Your task to perform on an android device: turn on notifications settings in the gmail app Image 0: 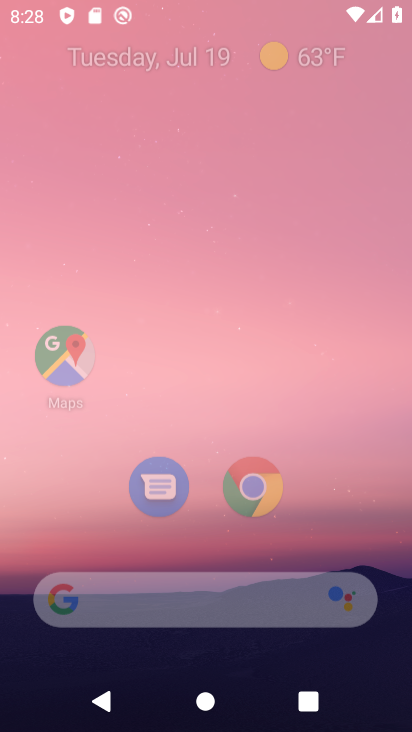
Step 0: click (241, 585)
Your task to perform on an android device: turn on notifications settings in the gmail app Image 1: 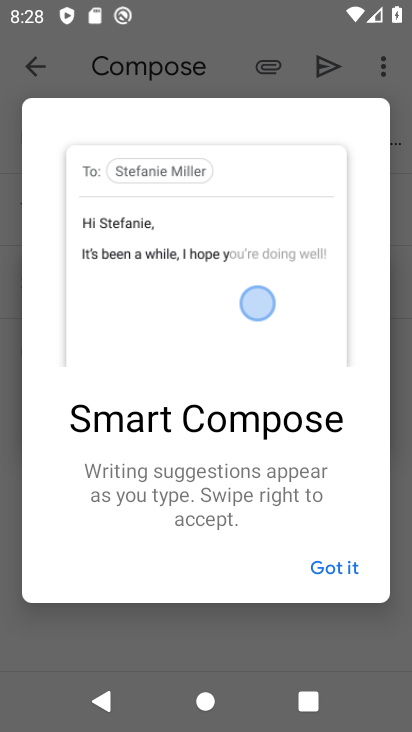
Step 1: press home button
Your task to perform on an android device: turn on notifications settings in the gmail app Image 2: 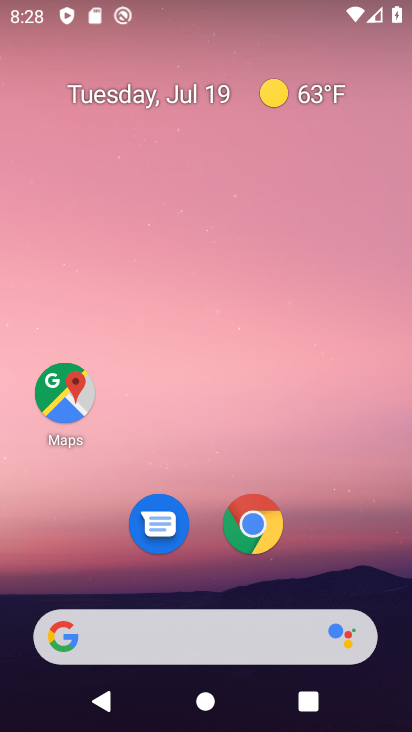
Step 2: drag from (214, 632) to (309, 184)
Your task to perform on an android device: turn on notifications settings in the gmail app Image 3: 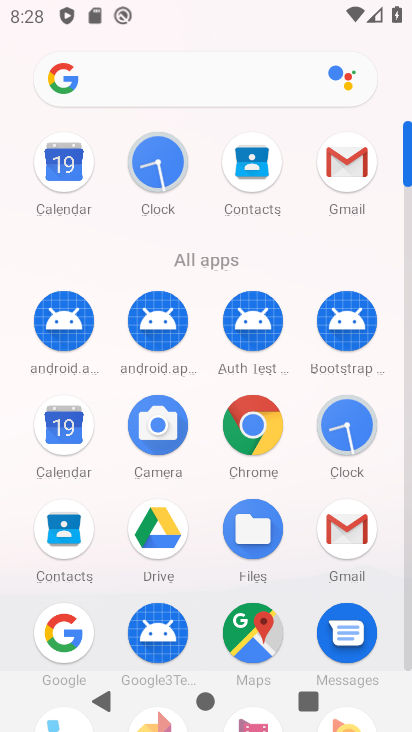
Step 3: click (341, 171)
Your task to perform on an android device: turn on notifications settings in the gmail app Image 4: 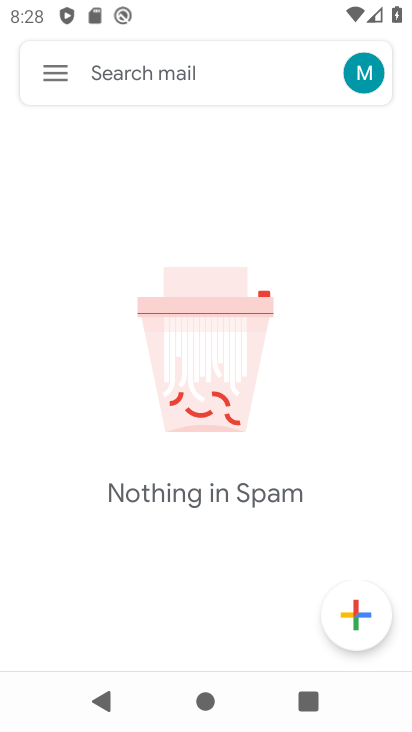
Step 4: click (54, 76)
Your task to perform on an android device: turn on notifications settings in the gmail app Image 5: 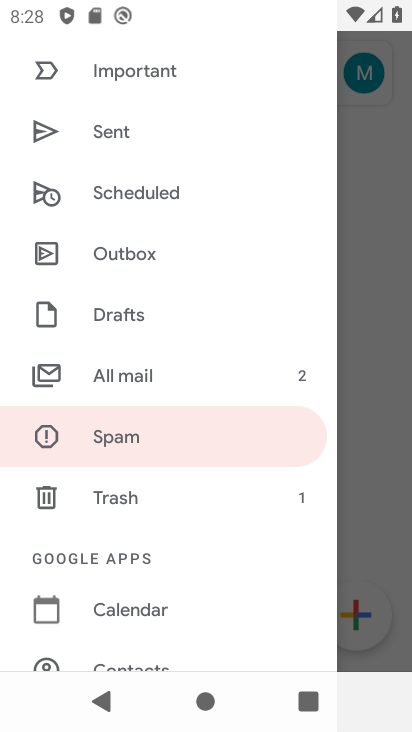
Step 5: drag from (201, 650) to (268, 147)
Your task to perform on an android device: turn on notifications settings in the gmail app Image 6: 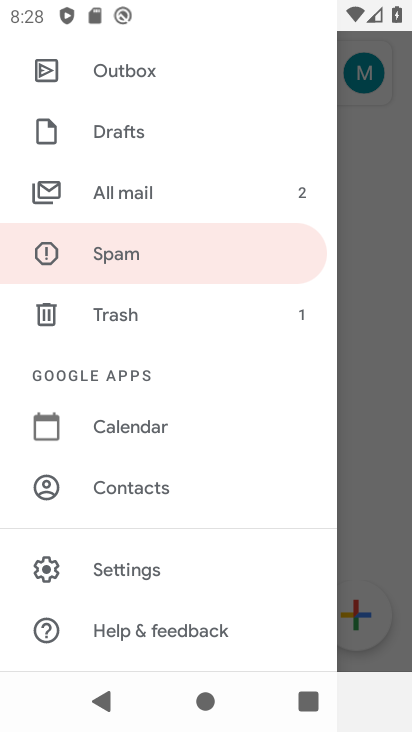
Step 6: click (151, 578)
Your task to perform on an android device: turn on notifications settings in the gmail app Image 7: 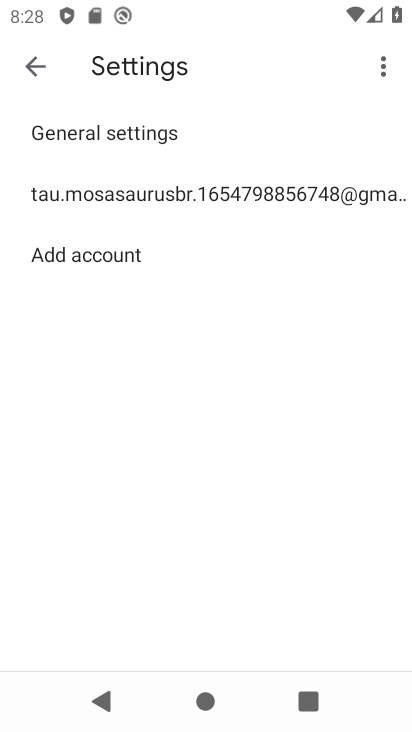
Step 7: click (267, 188)
Your task to perform on an android device: turn on notifications settings in the gmail app Image 8: 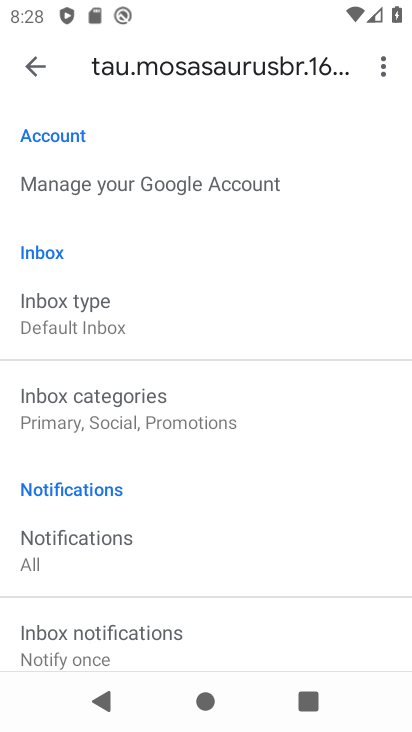
Step 8: click (81, 551)
Your task to perform on an android device: turn on notifications settings in the gmail app Image 9: 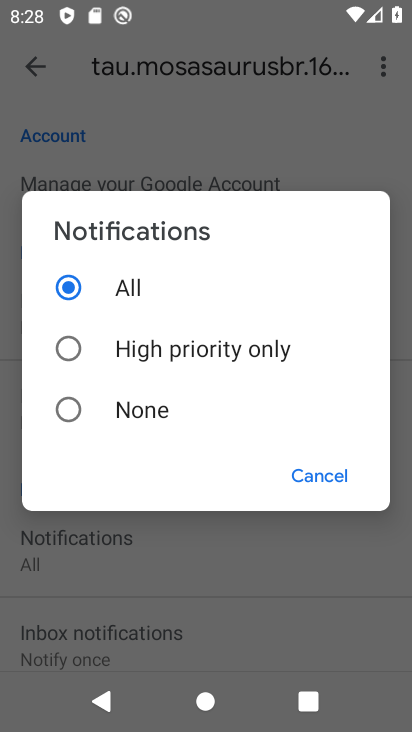
Step 9: task complete